Your task to perform on an android device: Check the news Image 0: 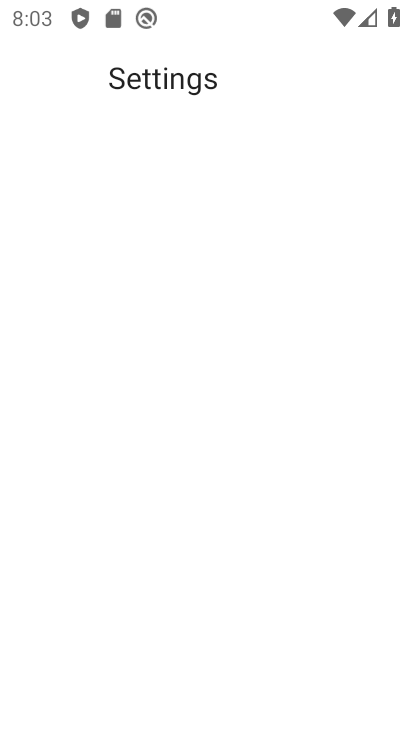
Step 0: press home button
Your task to perform on an android device: Check the news Image 1: 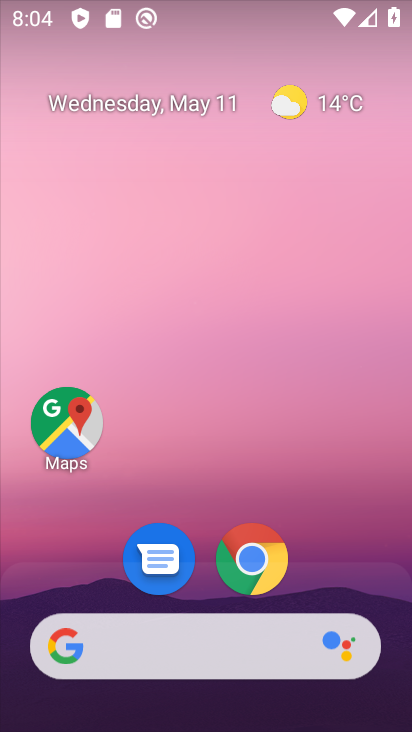
Step 1: click (260, 563)
Your task to perform on an android device: Check the news Image 2: 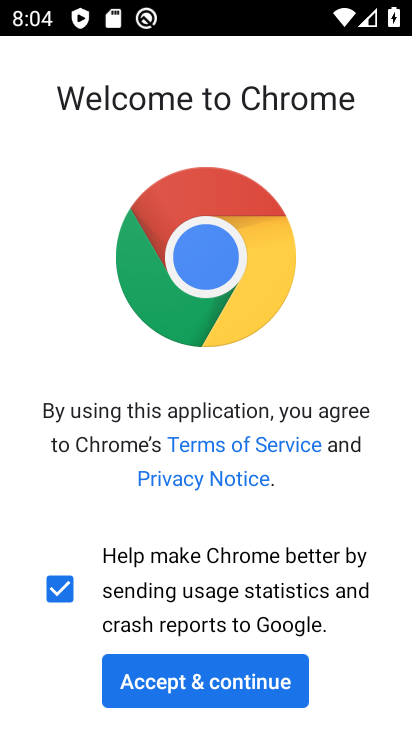
Step 2: click (253, 668)
Your task to perform on an android device: Check the news Image 3: 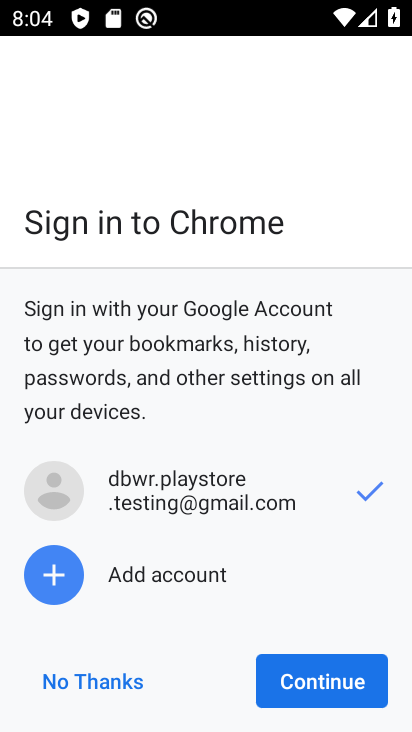
Step 3: click (358, 683)
Your task to perform on an android device: Check the news Image 4: 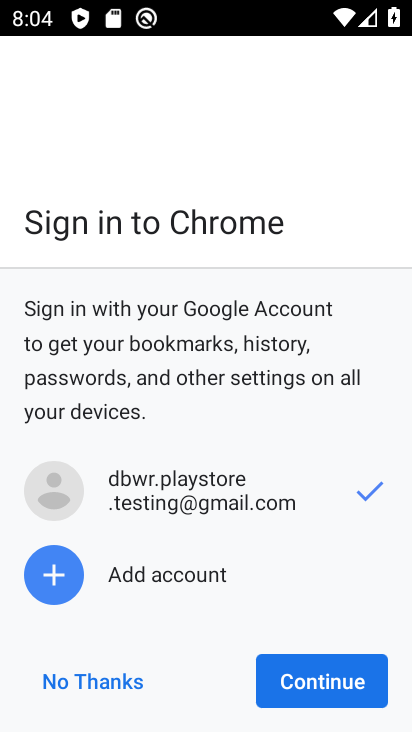
Step 4: click (358, 683)
Your task to perform on an android device: Check the news Image 5: 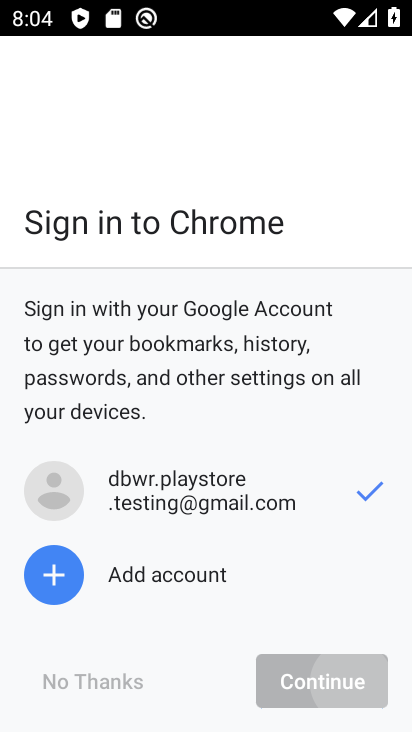
Step 5: click (358, 683)
Your task to perform on an android device: Check the news Image 6: 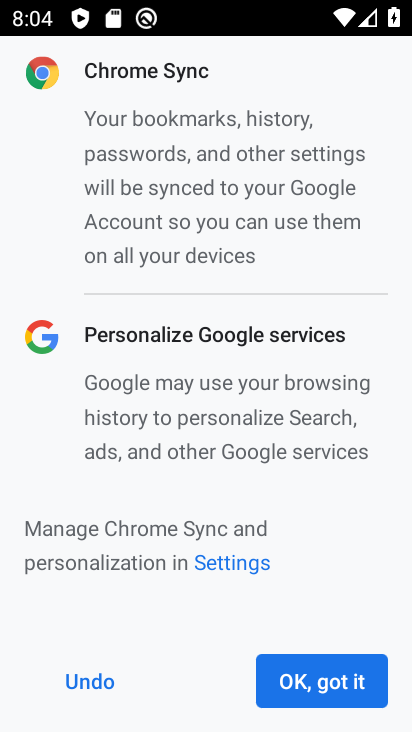
Step 6: click (358, 683)
Your task to perform on an android device: Check the news Image 7: 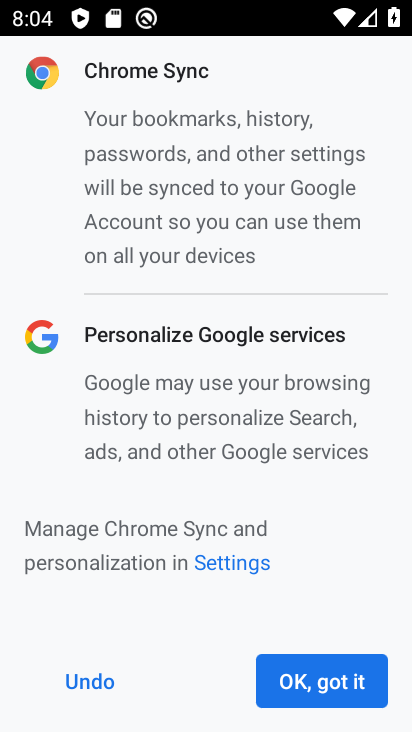
Step 7: click (358, 683)
Your task to perform on an android device: Check the news Image 8: 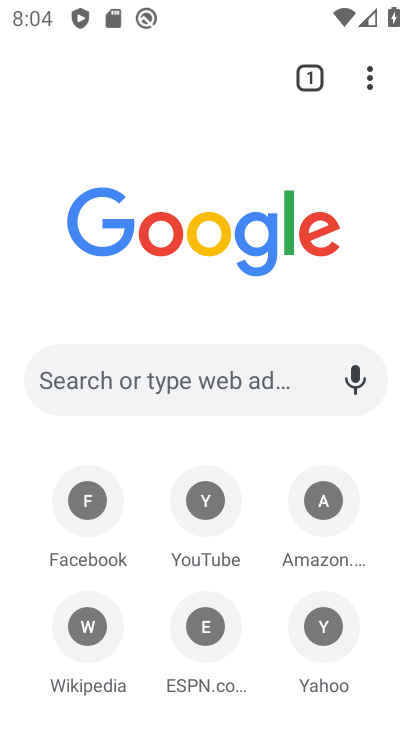
Step 8: click (151, 367)
Your task to perform on an android device: Check the news Image 9: 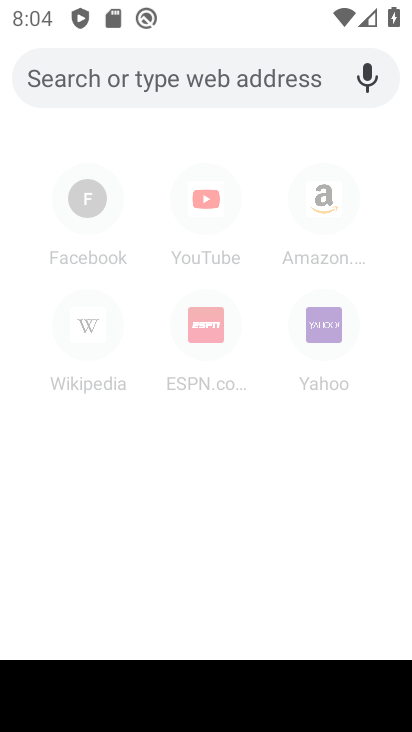
Step 9: type "news"
Your task to perform on an android device: Check the news Image 10: 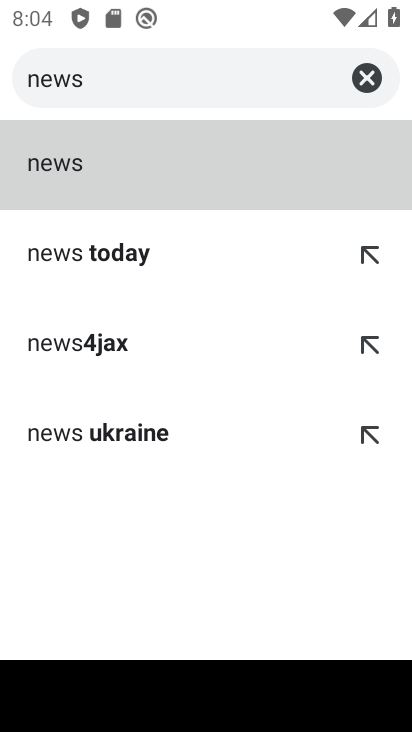
Step 10: click (73, 163)
Your task to perform on an android device: Check the news Image 11: 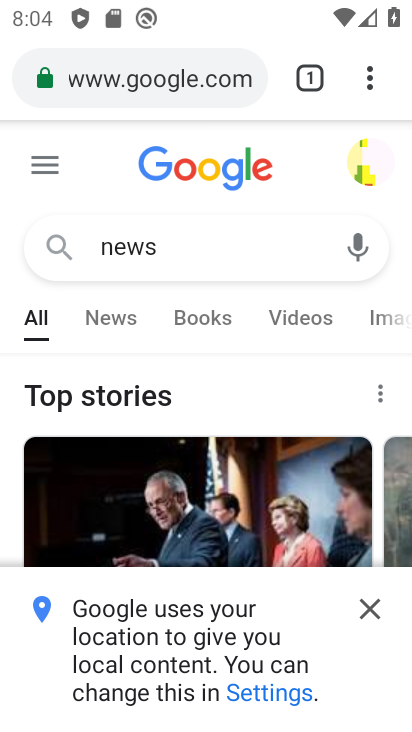
Step 11: task complete